Your task to perform on an android device: Open notification settings Image 0: 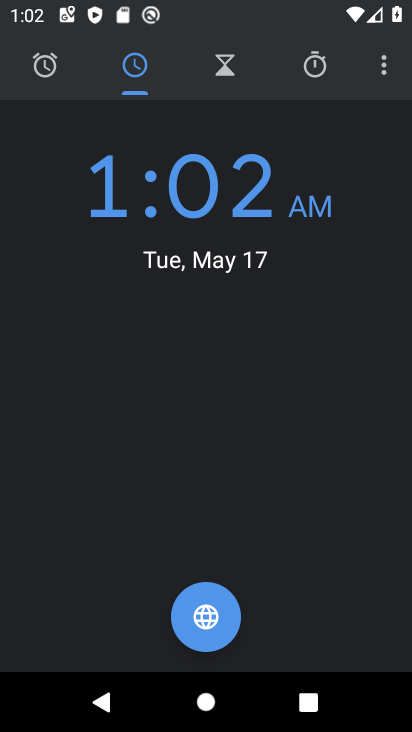
Step 0: press home button
Your task to perform on an android device: Open notification settings Image 1: 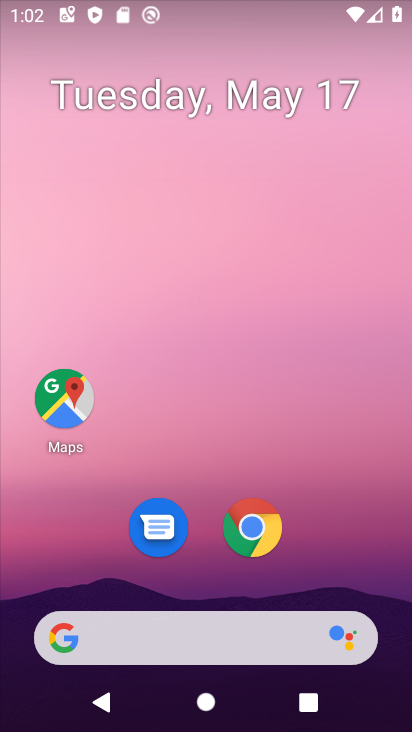
Step 1: drag from (178, 612) to (324, 162)
Your task to perform on an android device: Open notification settings Image 2: 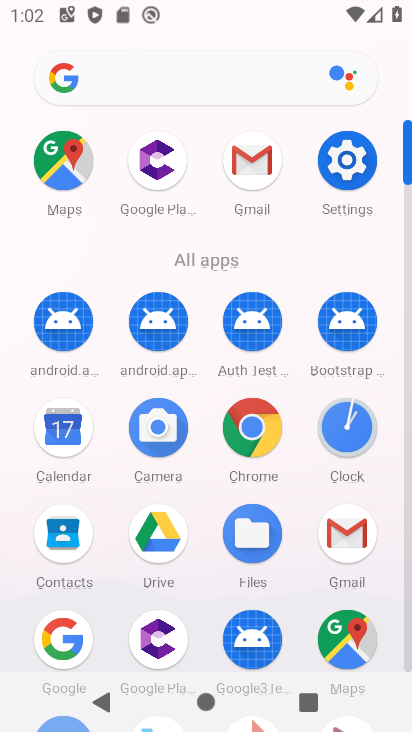
Step 2: drag from (194, 641) to (339, 278)
Your task to perform on an android device: Open notification settings Image 3: 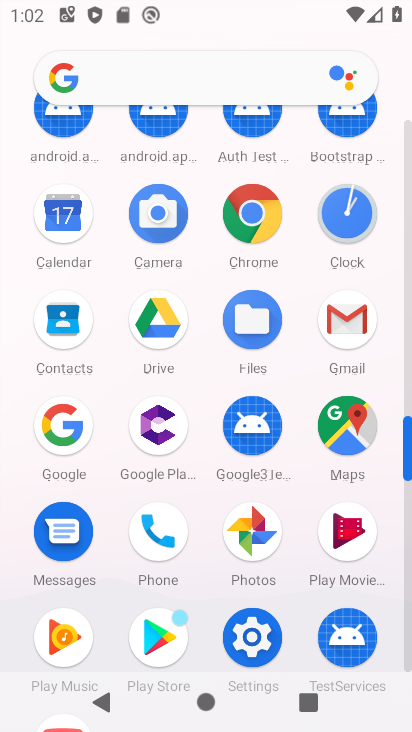
Step 3: click (245, 636)
Your task to perform on an android device: Open notification settings Image 4: 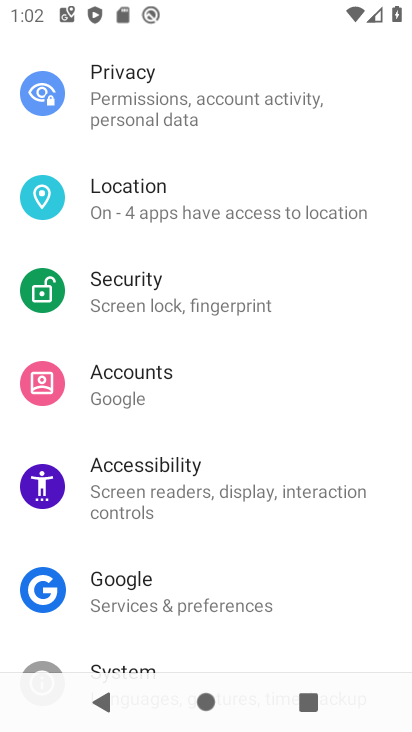
Step 4: drag from (246, 207) to (196, 628)
Your task to perform on an android device: Open notification settings Image 5: 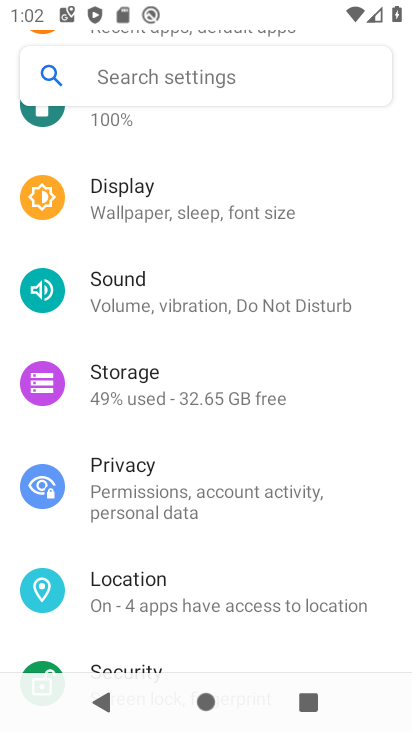
Step 5: drag from (217, 203) to (159, 580)
Your task to perform on an android device: Open notification settings Image 6: 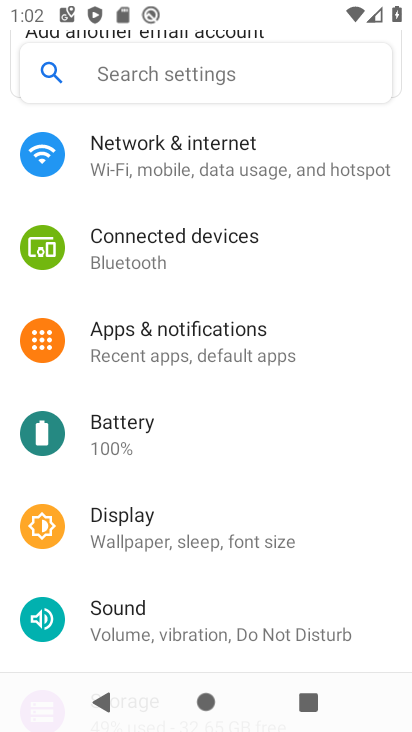
Step 6: click (168, 361)
Your task to perform on an android device: Open notification settings Image 7: 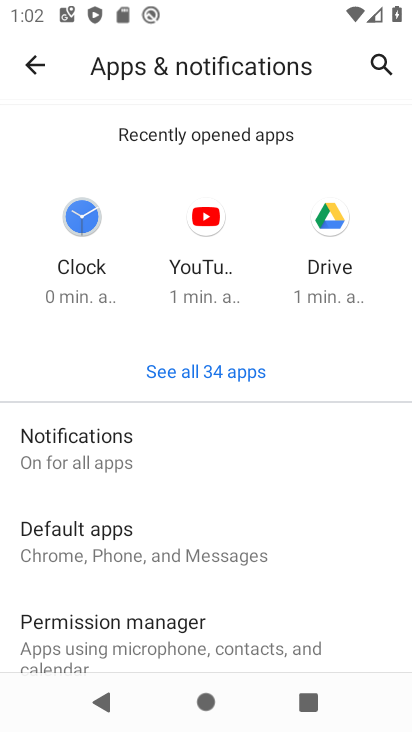
Step 7: click (151, 456)
Your task to perform on an android device: Open notification settings Image 8: 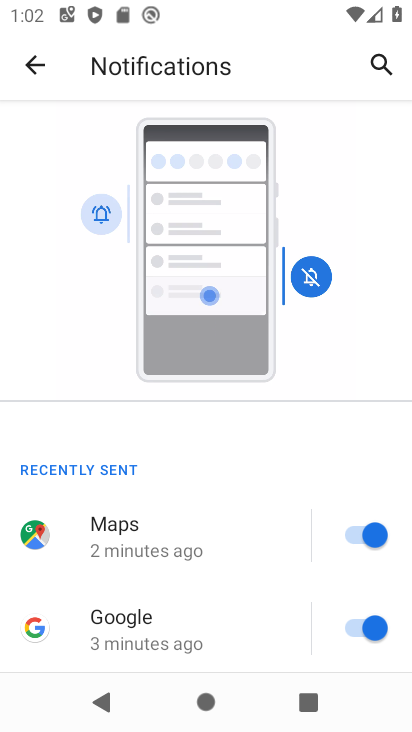
Step 8: task complete